Your task to perform on an android device: Open notification settings Image 0: 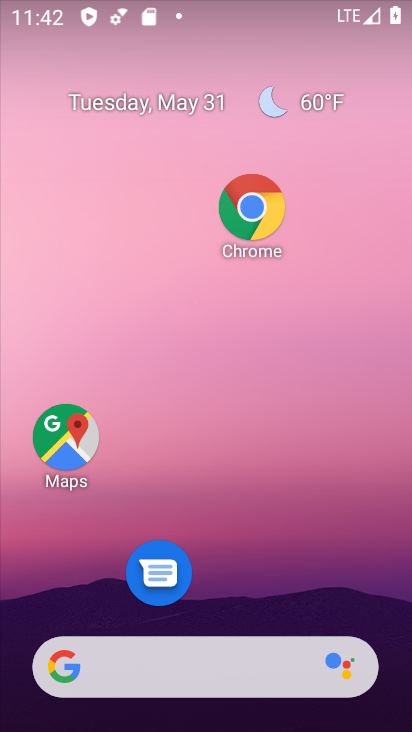
Step 0: drag from (248, 590) to (232, 138)
Your task to perform on an android device: Open notification settings Image 1: 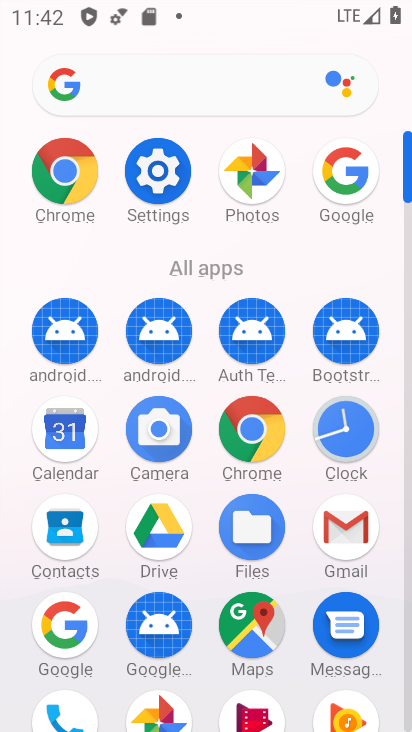
Step 1: click (162, 169)
Your task to perform on an android device: Open notification settings Image 2: 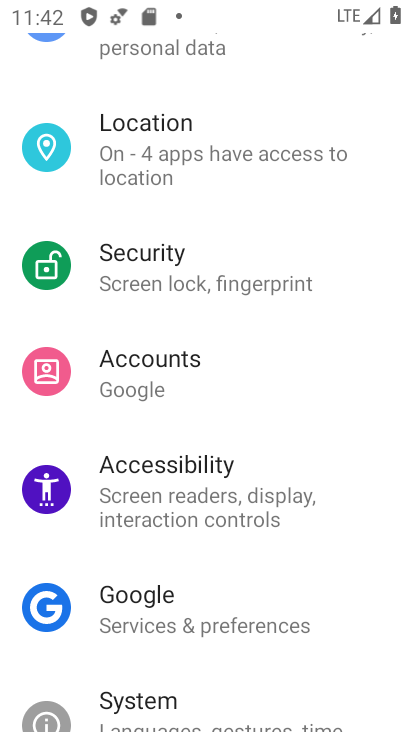
Step 2: drag from (212, 183) to (217, 542)
Your task to perform on an android device: Open notification settings Image 3: 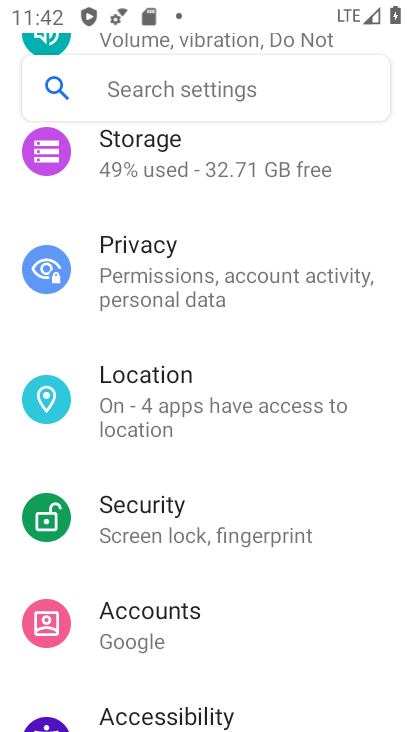
Step 3: drag from (231, 205) to (238, 521)
Your task to perform on an android device: Open notification settings Image 4: 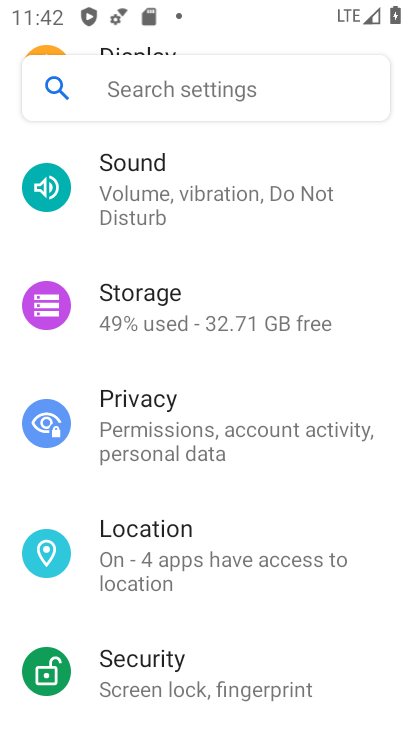
Step 4: drag from (216, 277) to (223, 536)
Your task to perform on an android device: Open notification settings Image 5: 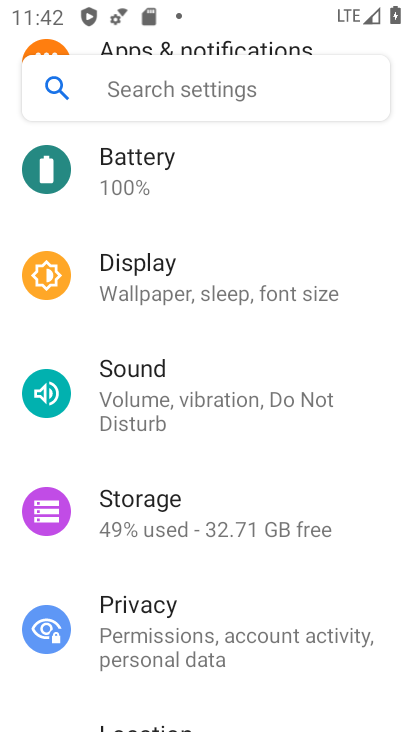
Step 5: drag from (237, 197) to (251, 494)
Your task to perform on an android device: Open notification settings Image 6: 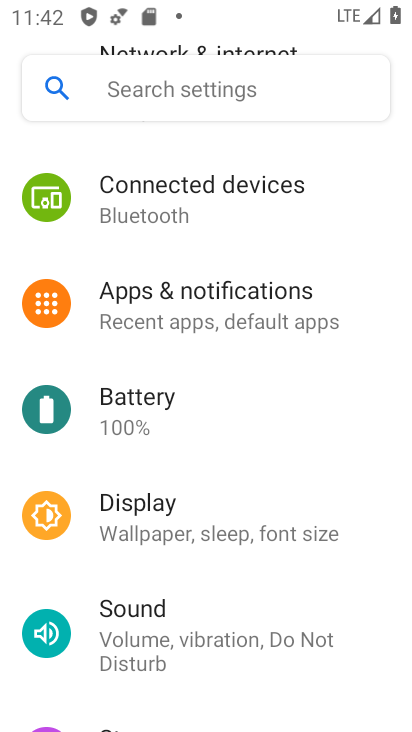
Step 6: click (237, 330)
Your task to perform on an android device: Open notification settings Image 7: 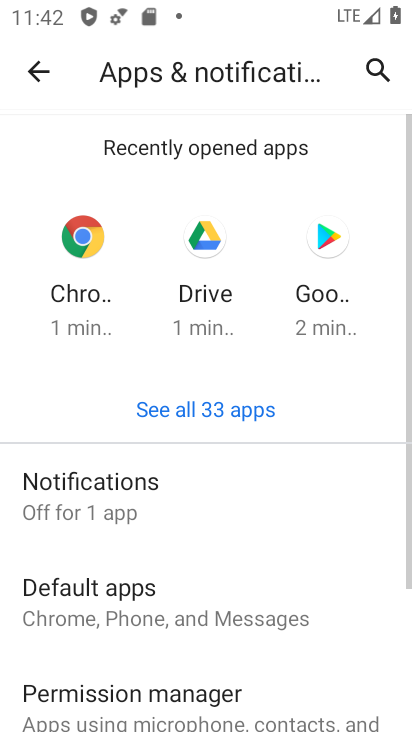
Step 7: click (212, 495)
Your task to perform on an android device: Open notification settings Image 8: 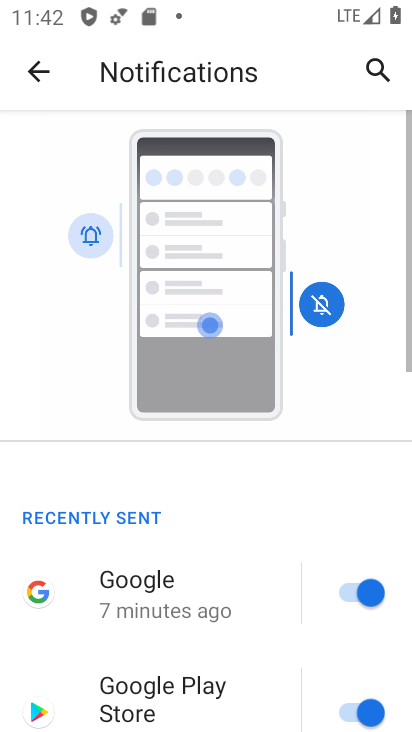
Step 8: task complete